Your task to perform on an android device: Go to Google Image 0: 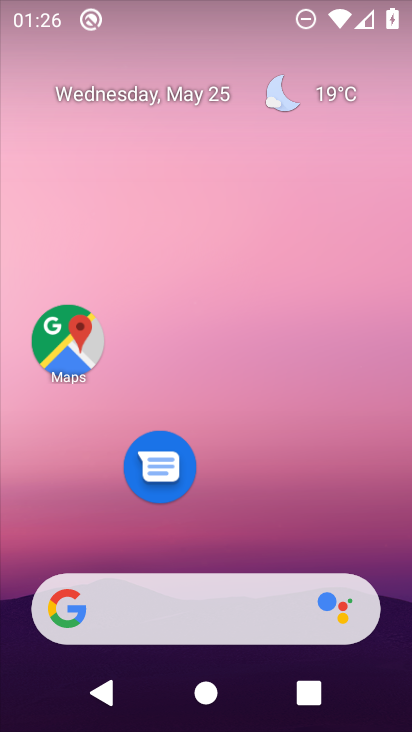
Step 0: drag from (225, 553) to (232, 171)
Your task to perform on an android device: Go to Google Image 1: 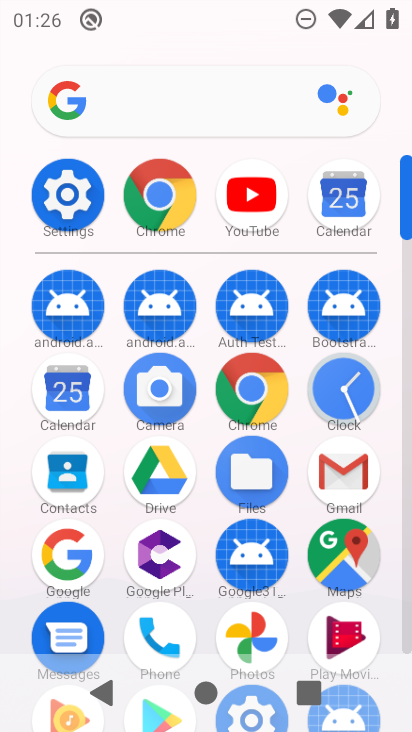
Step 1: click (67, 532)
Your task to perform on an android device: Go to Google Image 2: 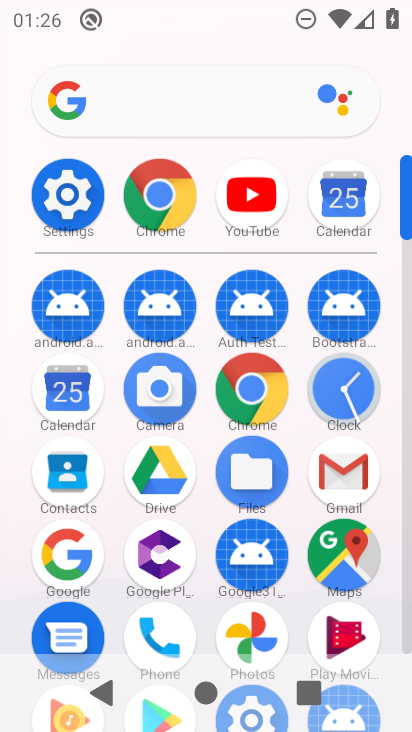
Step 2: click (67, 532)
Your task to perform on an android device: Go to Google Image 3: 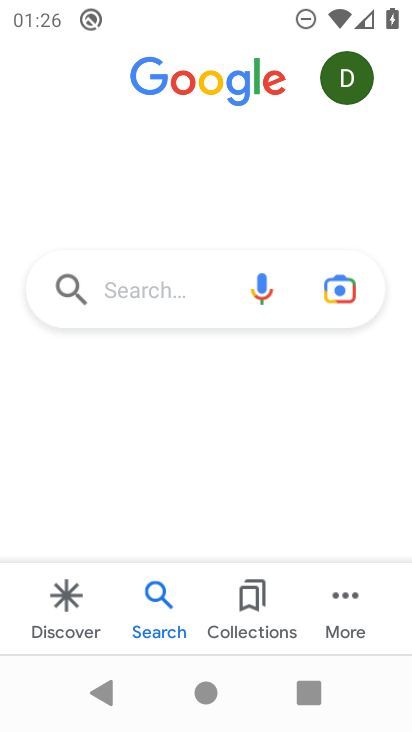
Step 3: task complete